Your task to perform on an android device: Open the web browser Image 0: 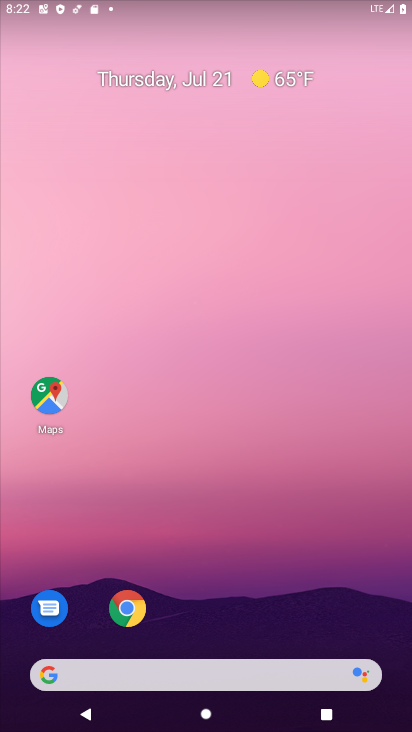
Step 0: click (127, 608)
Your task to perform on an android device: Open the web browser Image 1: 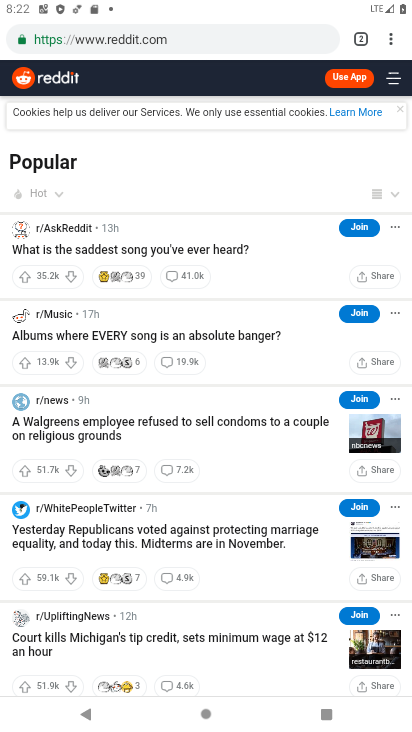
Step 1: task complete